Your task to perform on an android device: Go to sound settings Image 0: 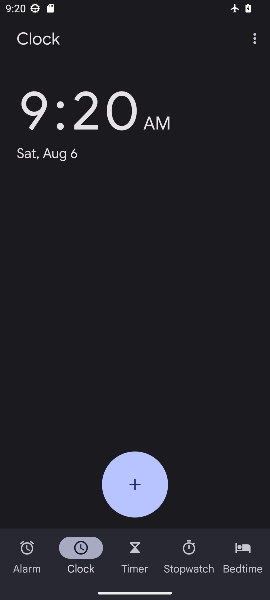
Step 0: press home button
Your task to perform on an android device: Go to sound settings Image 1: 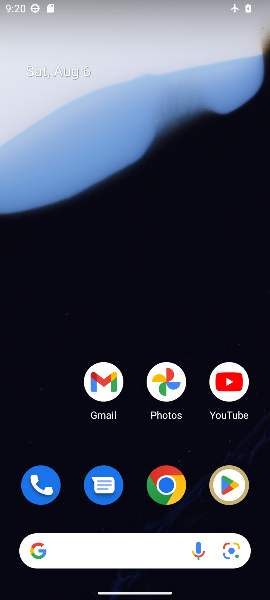
Step 1: drag from (203, 448) to (177, 14)
Your task to perform on an android device: Go to sound settings Image 2: 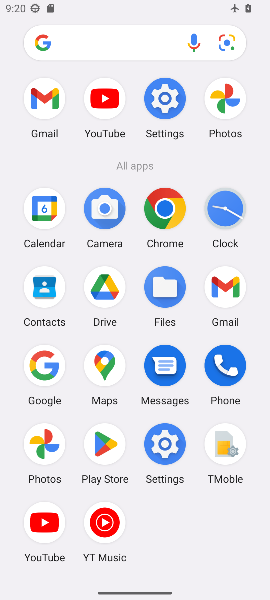
Step 2: click (165, 439)
Your task to perform on an android device: Go to sound settings Image 3: 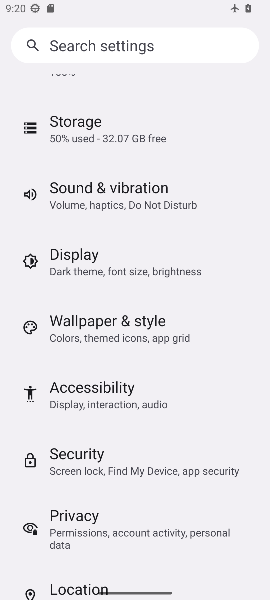
Step 3: drag from (178, 572) to (204, 261)
Your task to perform on an android device: Go to sound settings Image 4: 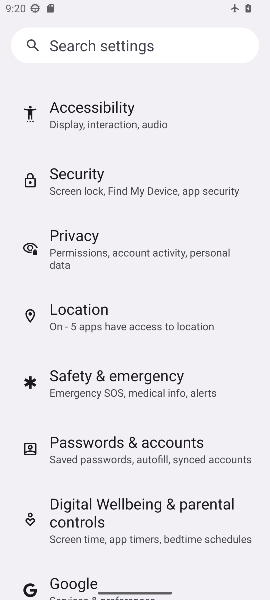
Step 4: drag from (122, 559) to (168, 209)
Your task to perform on an android device: Go to sound settings Image 5: 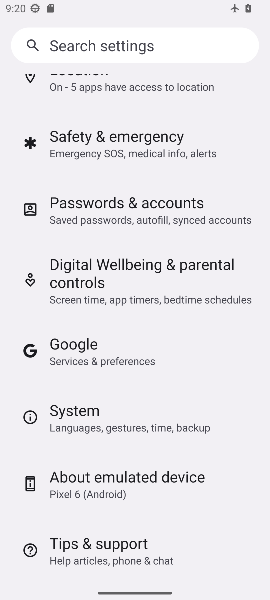
Step 5: drag from (218, 116) to (76, 549)
Your task to perform on an android device: Go to sound settings Image 6: 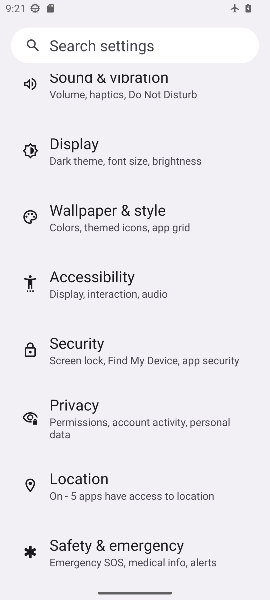
Step 6: click (89, 90)
Your task to perform on an android device: Go to sound settings Image 7: 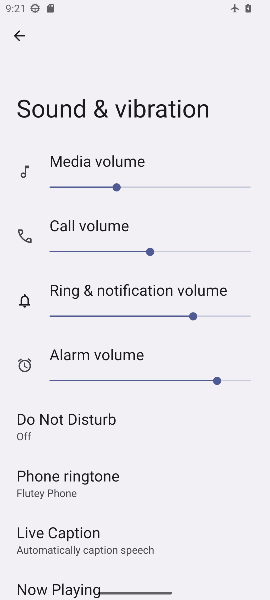
Step 7: task complete